Your task to perform on an android device: add a contact in the contacts app Image 0: 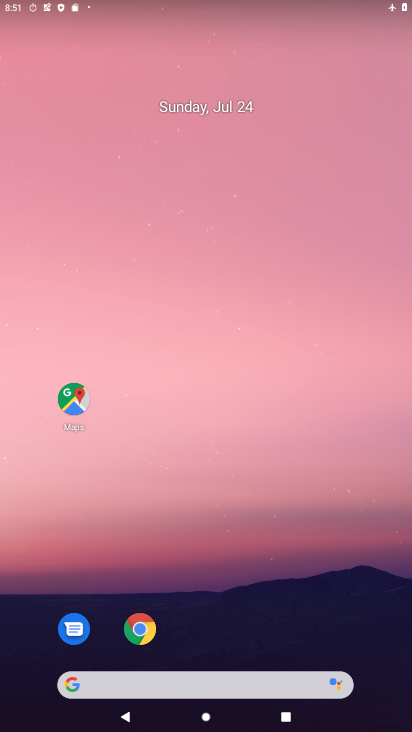
Step 0: drag from (216, 537) to (362, 66)
Your task to perform on an android device: add a contact in the contacts app Image 1: 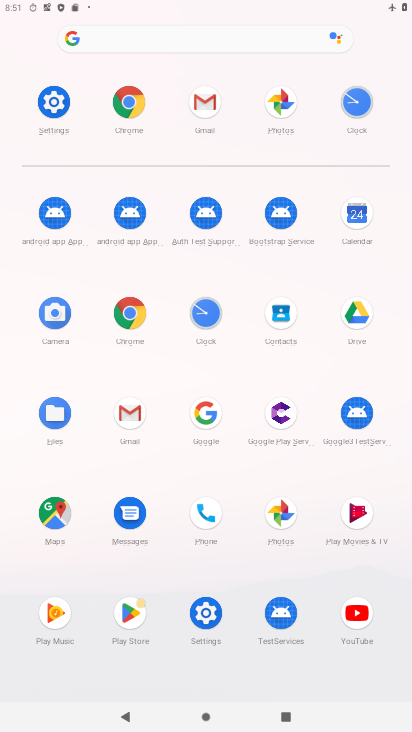
Step 1: click (288, 340)
Your task to perform on an android device: add a contact in the contacts app Image 2: 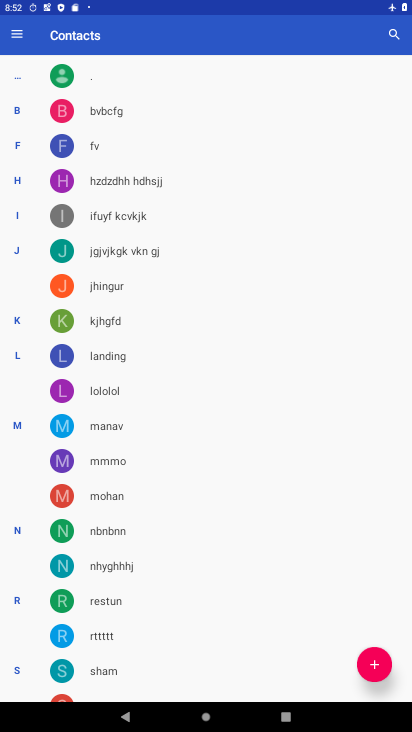
Step 2: click (386, 662)
Your task to perform on an android device: add a contact in the contacts app Image 3: 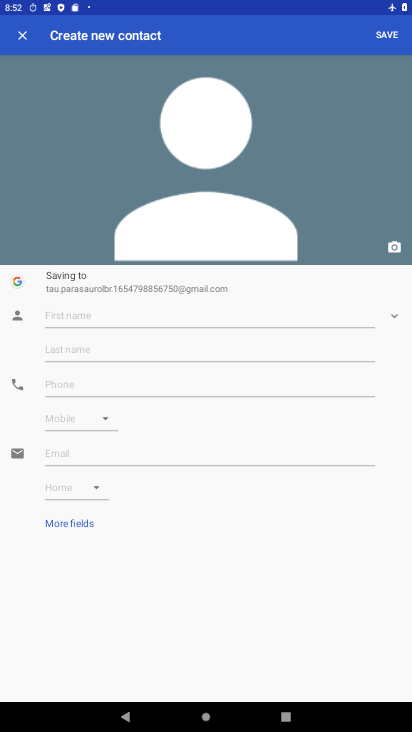
Step 3: click (146, 320)
Your task to perform on an android device: add a contact in the contacts app Image 4: 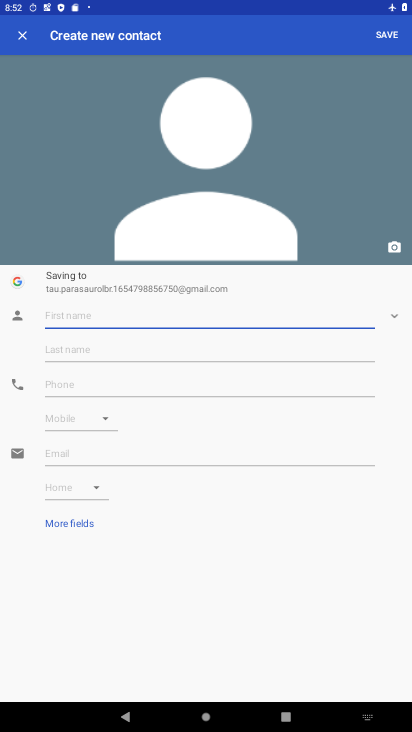
Step 4: type "uydxcvb"
Your task to perform on an android device: add a contact in the contacts app Image 5: 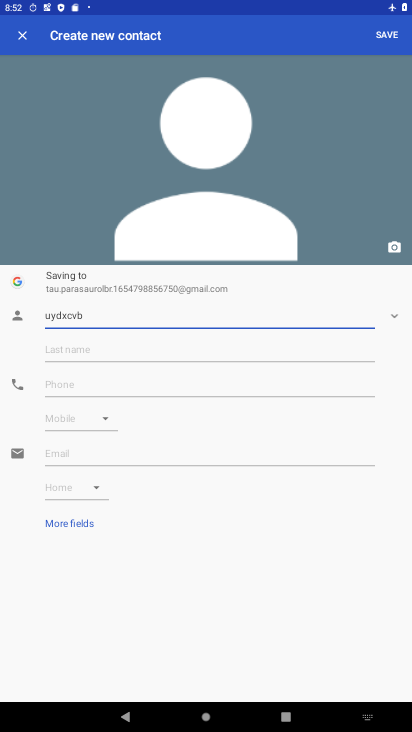
Step 5: click (177, 387)
Your task to perform on an android device: add a contact in the contacts app Image 6: 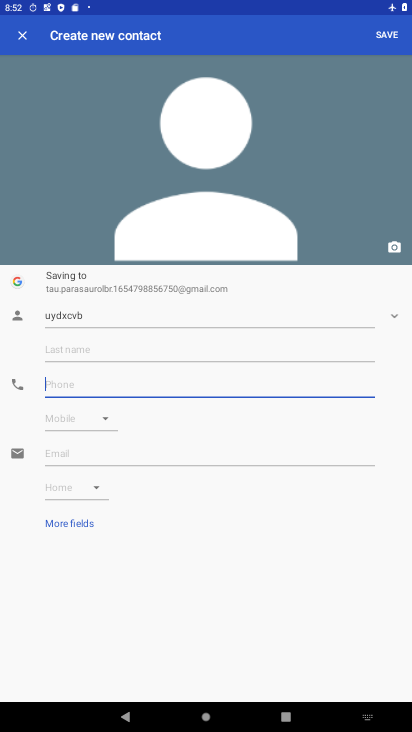
Step 6: type "876545678"
Your task to perform on an android device: add a contact in the contacts app Image 7: 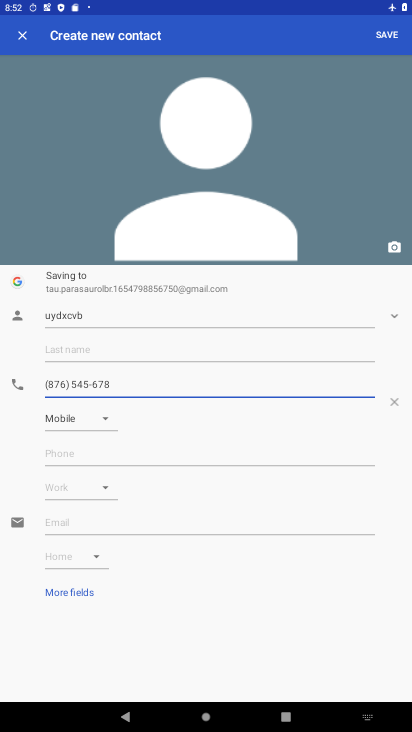
Step 7: click (386, 40)
Your task to perform on an android device: add a contact in the contacts app Image 8: 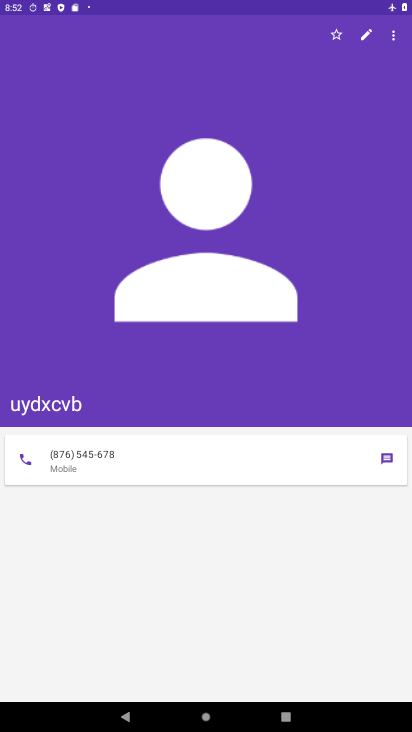
Step 8: task complete